Your task to perform on an android device: remove spam from my inbox in the gmail app Image 0: 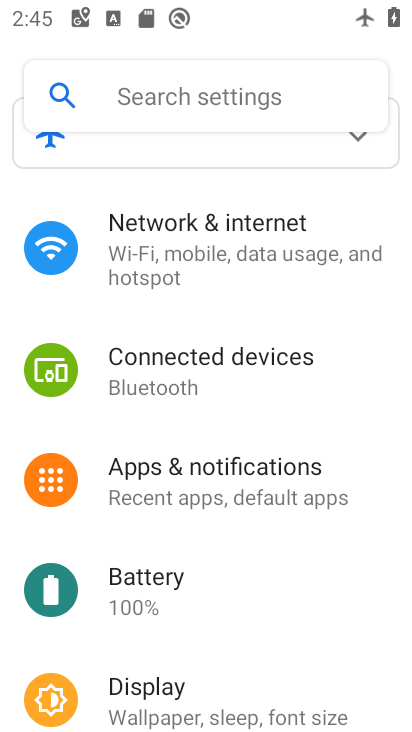
Step 0: press home button
Your task to perform on an android device: remove spam from my inbox in the gmail app Image 1: 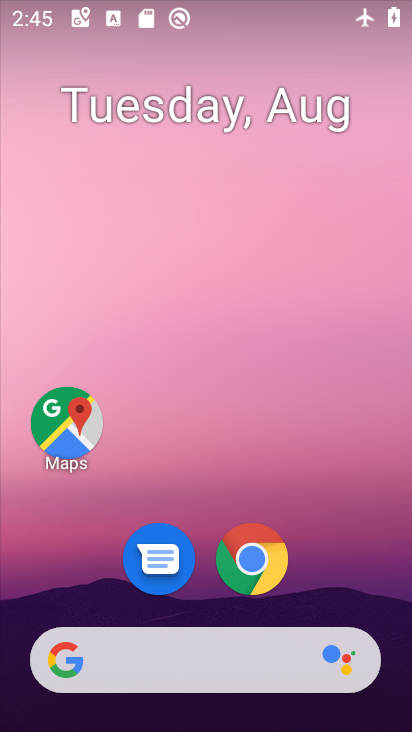
Step 1: drag from (208, 502) to (176, 161)
Your task to perform on an android device: remove spam from my inbox in the gmail app Image 2: 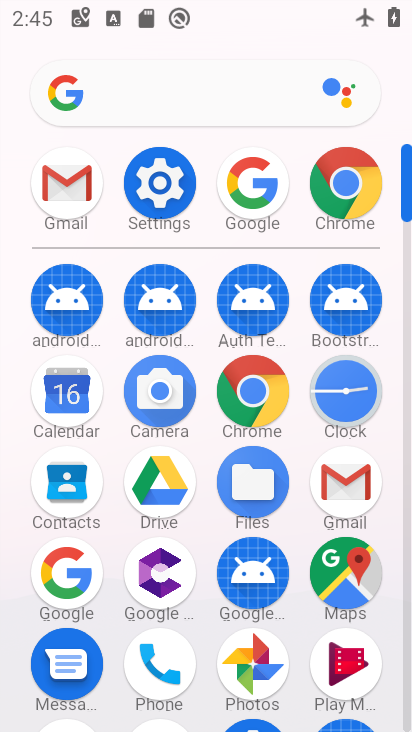
Step 2: click (66, 205)
Your task to perform on an android device: remove spam from my inbox in the gmail app Image 3: 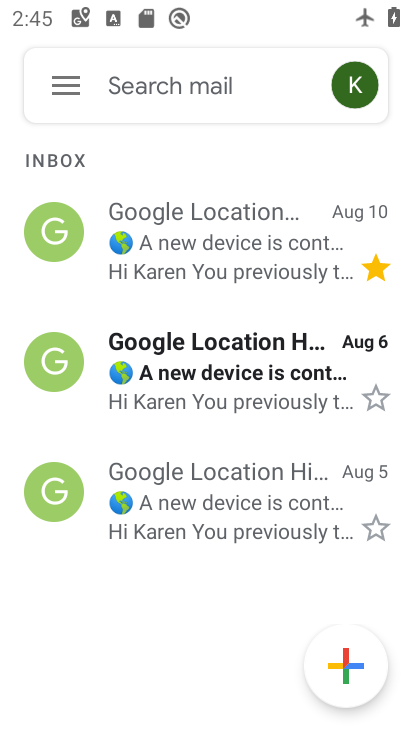
Step 3: click (52, 91)
Your task to perform on an android device: remove spam from my inbox in the gmail app Image 4: 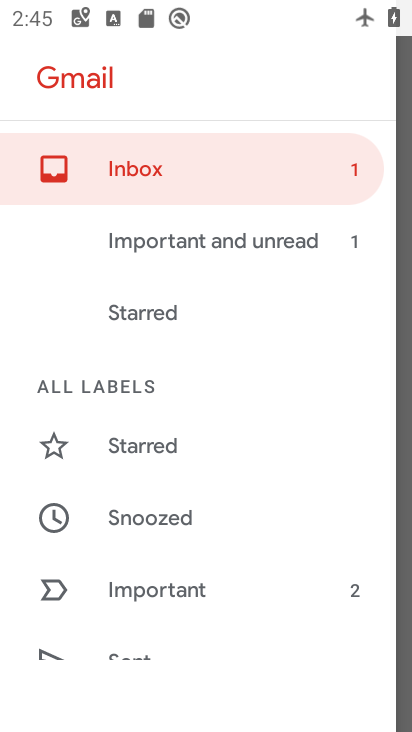
Step 4: drag from (209, 590) to (212, 213)
Your task to perform on an android device: remove spam from my inbox in the gmail app Image 5: 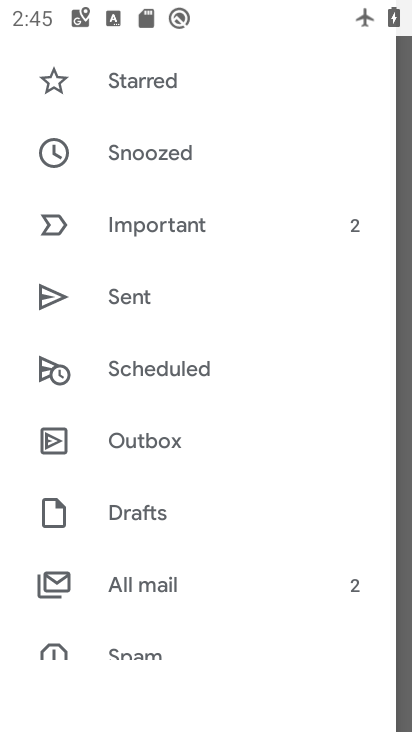
Step 5: drag from (230, 549) to (212, 263)
Your task to perform on an android device: remove spam from my inbox in the gmail app Image 6: 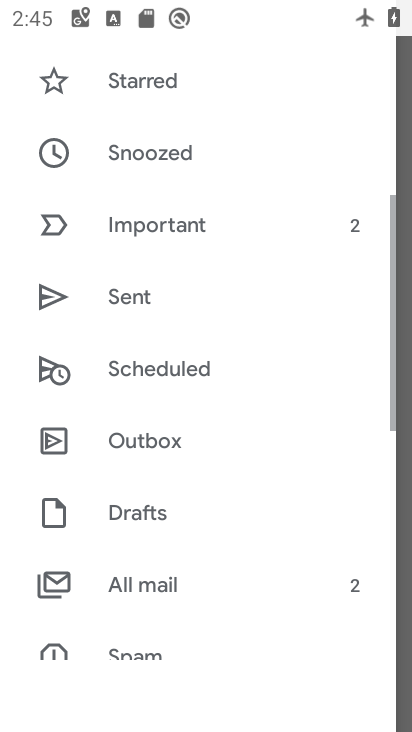
Step 6: drag from (207, 621) to (202, 315)
Your task to perform on an android device: remove spam from my inbox in the gmail app Image 7: 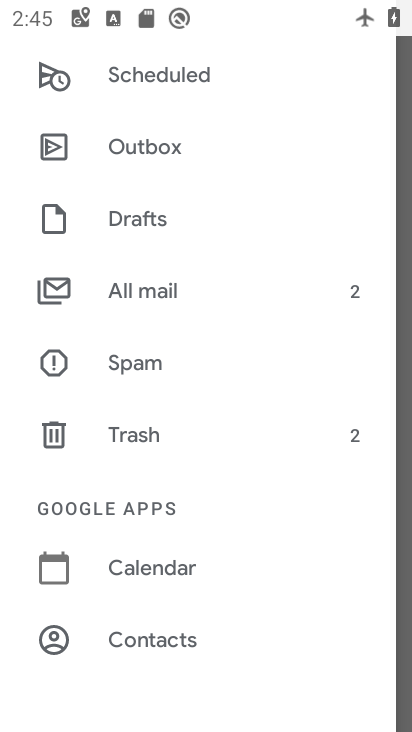
Step 7: click (158, 372)
Your task to perform on an android device: remove spam from my inbox in the gmail app Image 8: 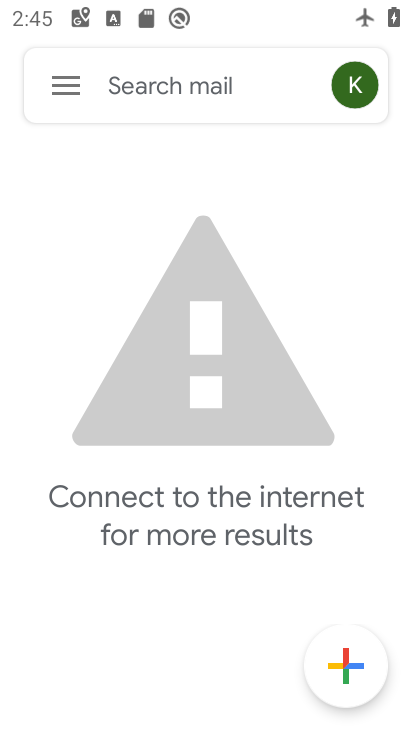
Step 8: task complete